Your task to perform on an android device: open app "eBay: The shopping marketplace" Image 0: 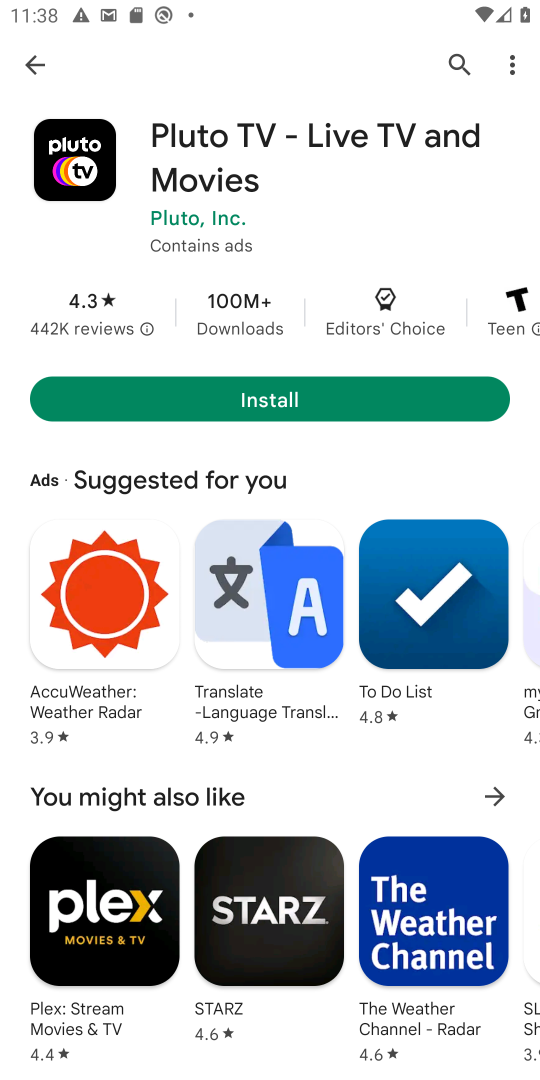
Step 0: click (459, 69)
Your task to perform on an android device: open app "eBay: The shopping marketplace" Image 1: 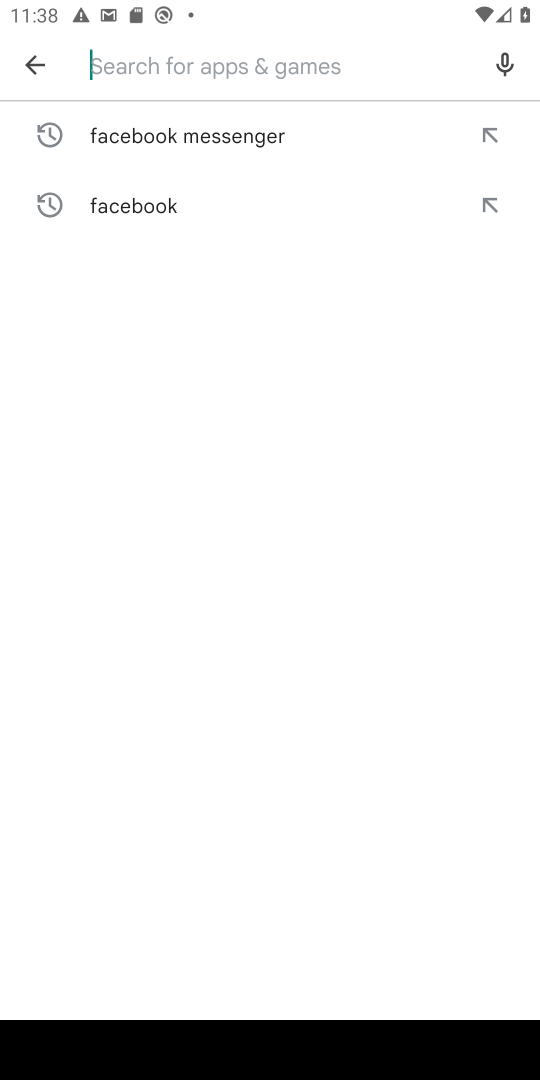
Step 1: type "eBay: The shopping marketplace"
Your task to perform on an android device: open app "eBay: The shopping marketplace" Image 2: 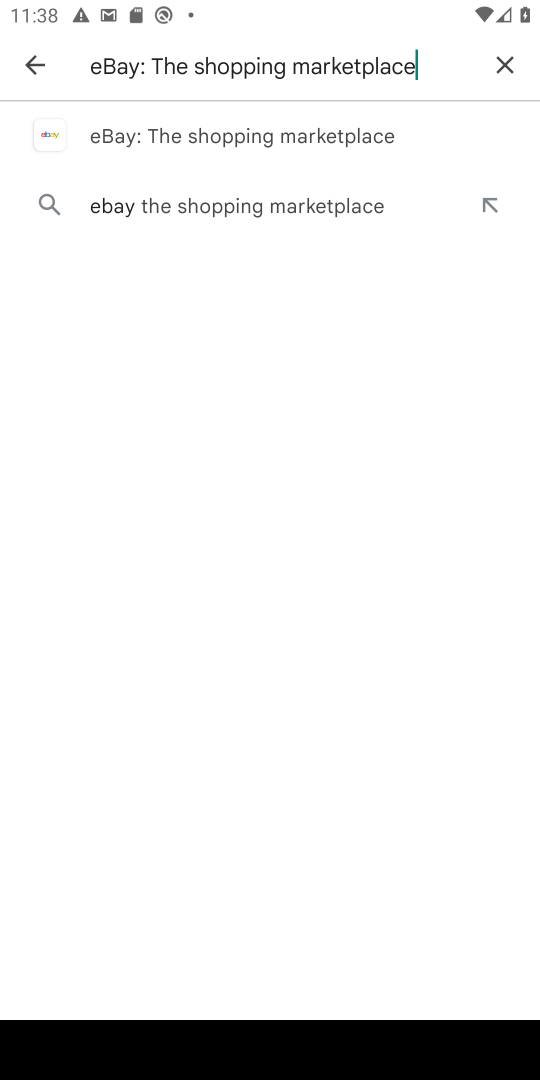
Step 2: click (228, 126)
Your task to perform on an android device: open app "eBay: The shopping marketplace" Image 3: 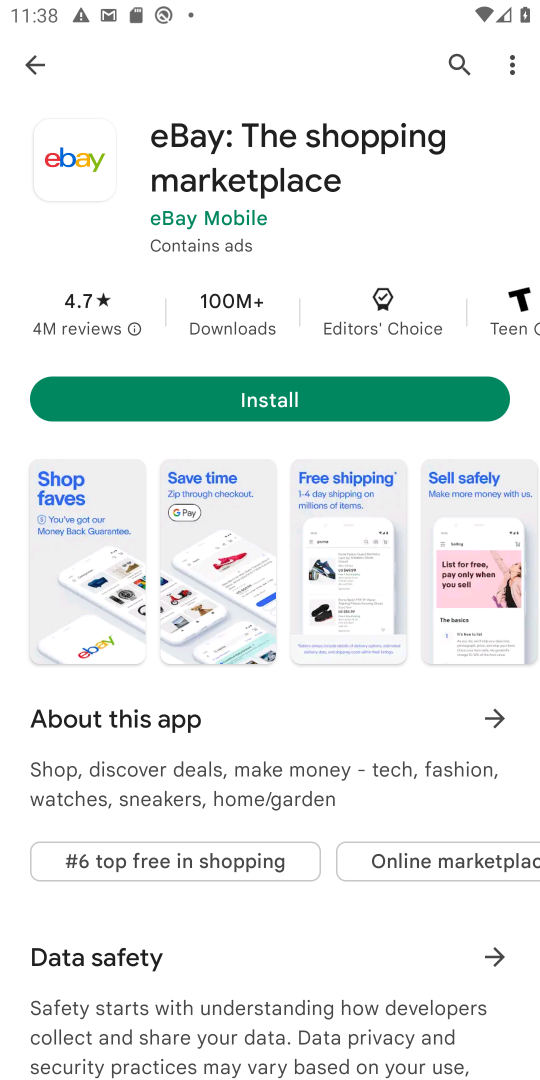
Step 3: task complete